Your task to perform on an android device: Go to sound settings Image 0: 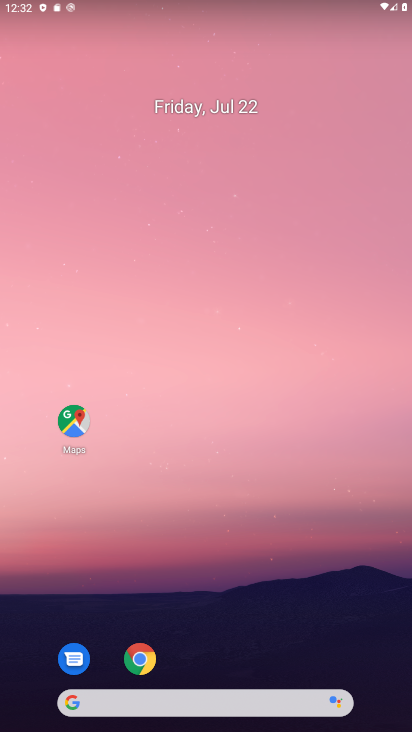
Step 0: drag from (253, 655) to (235, 7)
Your task to perform on an android device: Go to sound settings Image 1: 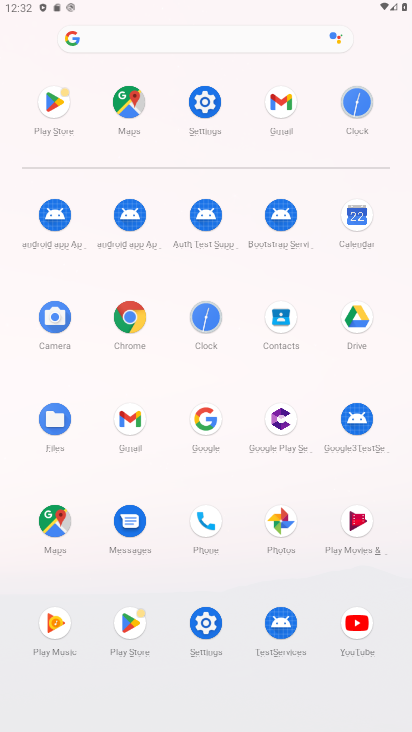
Step 1: click (203, 132)
Your task to perform on an android device: Go to sound settings Image 2: 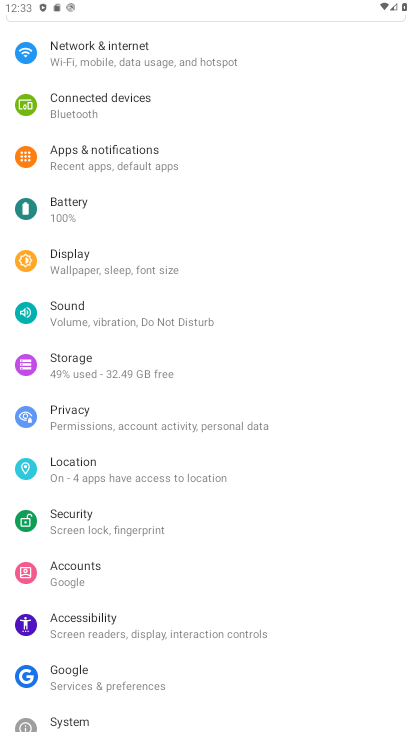
Step 2: click (124, 306)
Your task to perform on an android device: Go to sound settings Image 3: 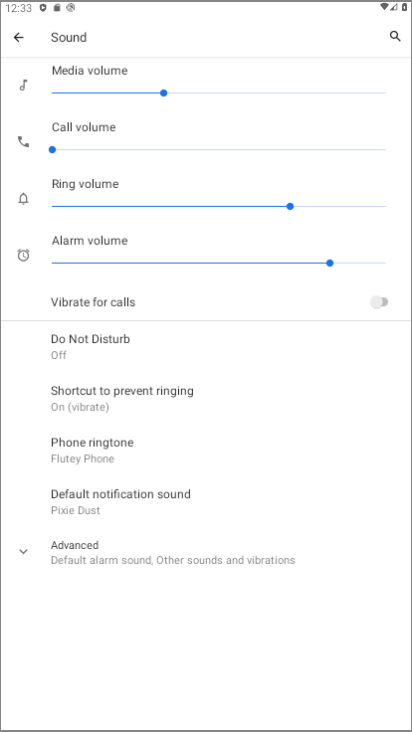
Step 3: task complete